Your task to perform on an android device: Do I have any events this weekend? Image 0: 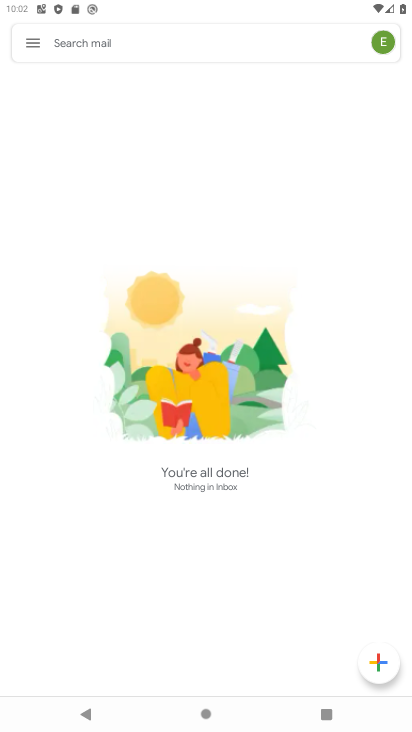
Step 0: press home button
Your task to perform on an android device: Do I have any events this weekend? Image 1: 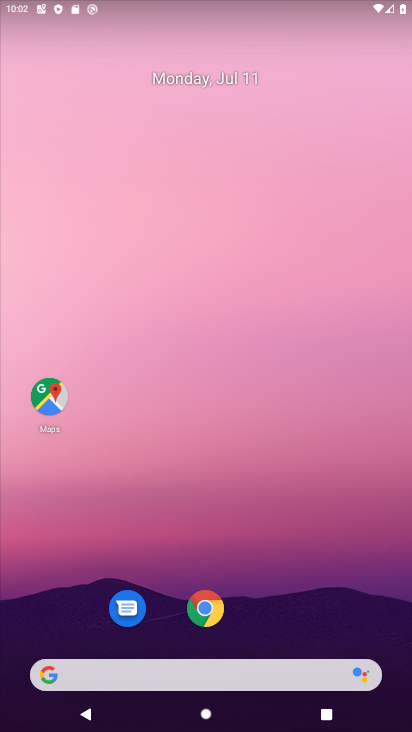
Step 1: drag from (32, 699) to (365, 0)
Your task to perform on an android device: Do I have any events this weekend? Image 2: 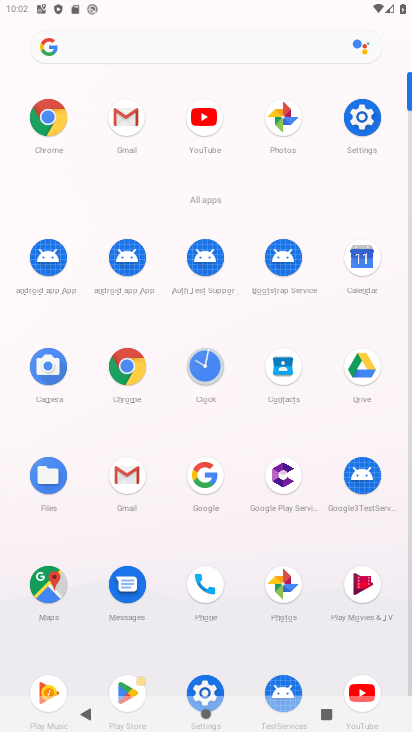
Step 2: click (373, 254)
Your task to perform on an android device: Do I have any events this weekend? Image 3: 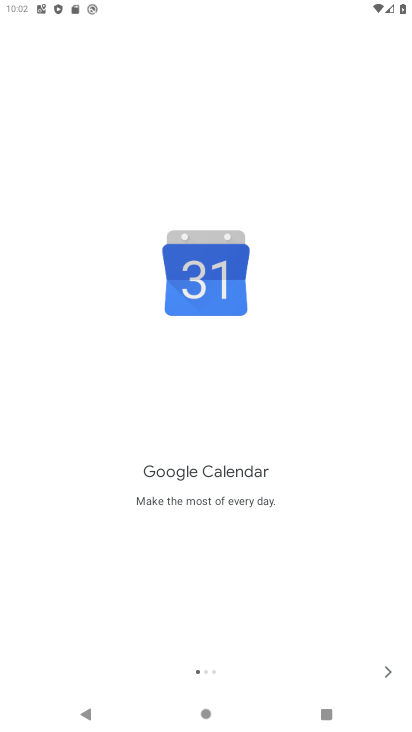
Step 3: click (387, 672)
Your task to perform on an android device: Do I have any events this weekend? Image 4: 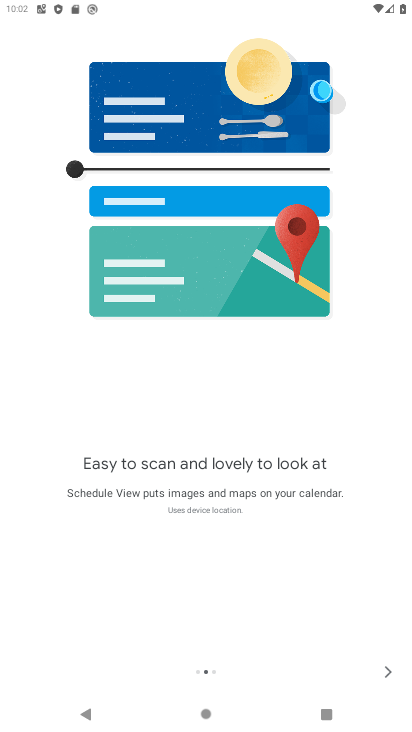
Step 4: click (387, 672)
Your task to perform on an android device: Do I have any events this weekend? Image 5: 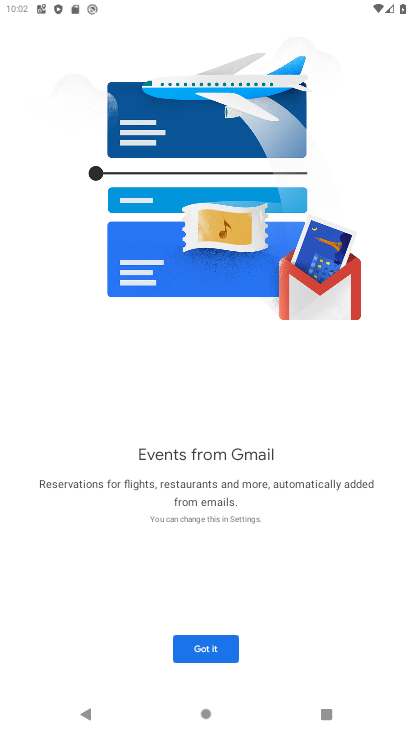
Step 5: click (199, 644)
Your task to perform on an android device: Do I have any events this weekend? Image 6: 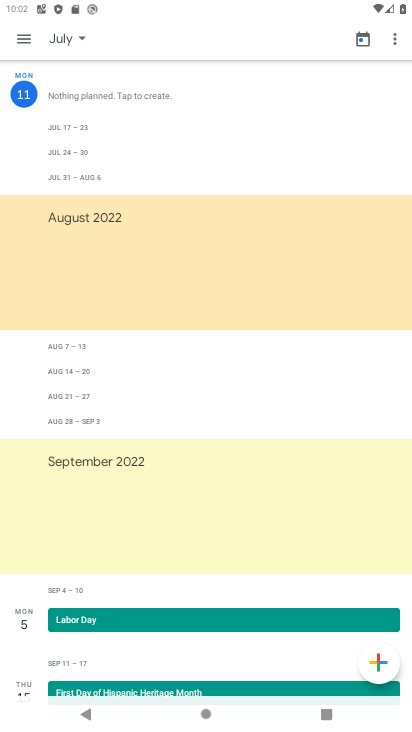
Step 6: click (30, 38)
Your task to perform on an android device: Do I have any events this weekend? Image 7: 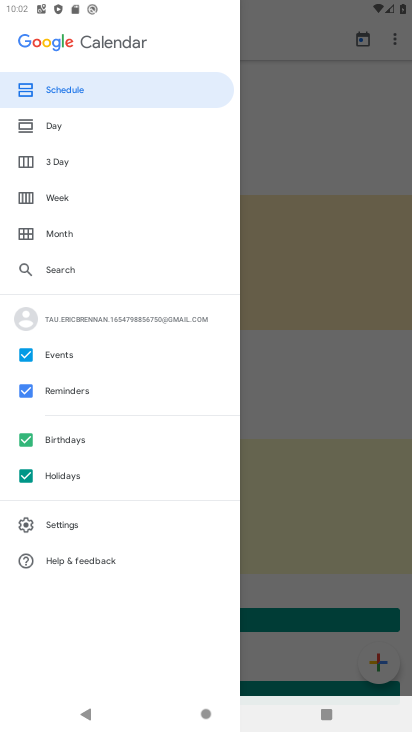
Step 7: click (305, 57)
Your task to perform on an android device: Do I have any events this weekend? Image 8: 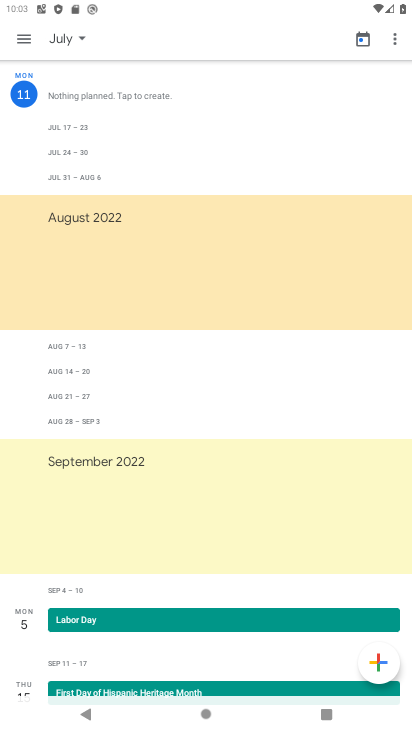
Step 8: task complete